Your task to perform on an android device: open sync settings in chrome Image 0: 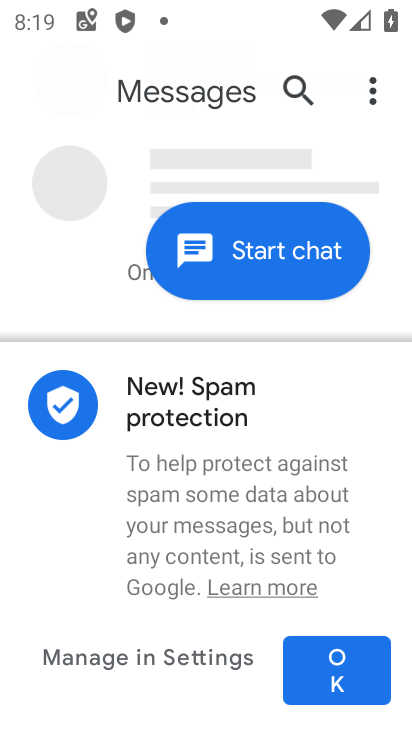
Step 0: press home button
Your task to perform on an android device: open sync settings in chrome Image 1: 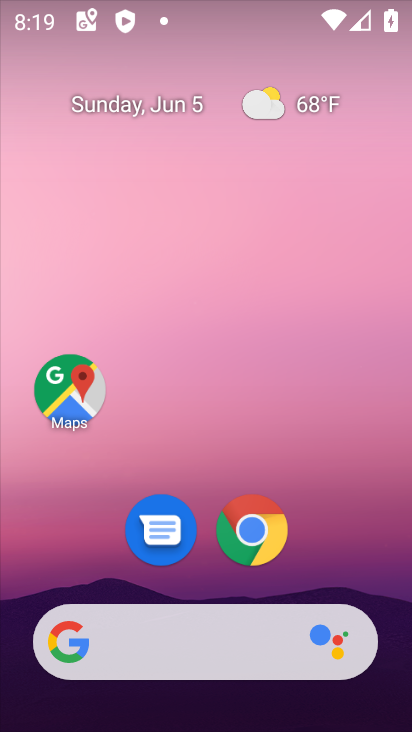
Step 1: click (254, 531)
Your task to perform on an android device: open sync settings in chrome Image 2: 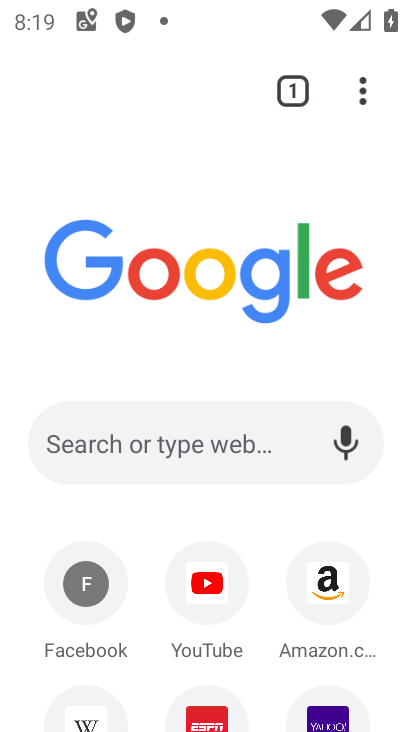
Step 2: click (359, 95)
Your task to perform on an android device: open sync settings in chrome Image 3: 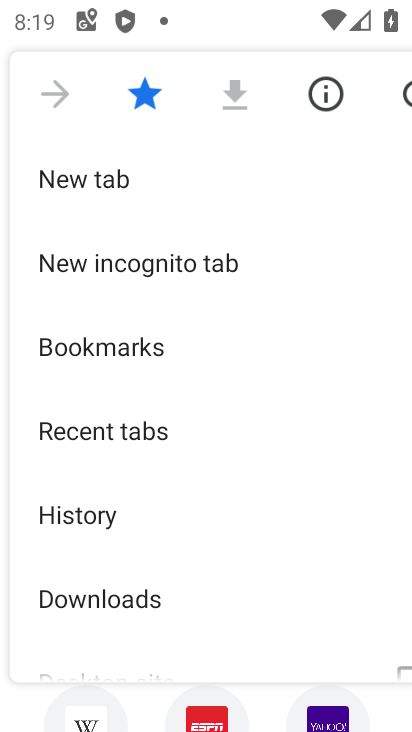
Step 3: drag from (210, 617) to (268, 134)
Your task to perform on an android device: open sync settings in chrome Image 4: 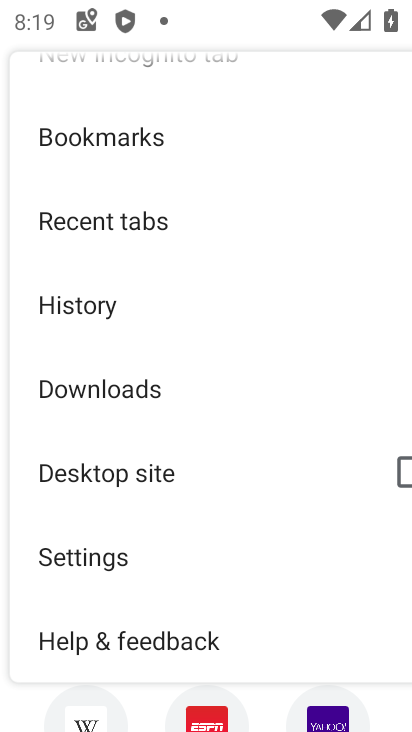
Step 4: click (107, 560)
Your task to perform on an android device: open sync settings in chrome Image 5: 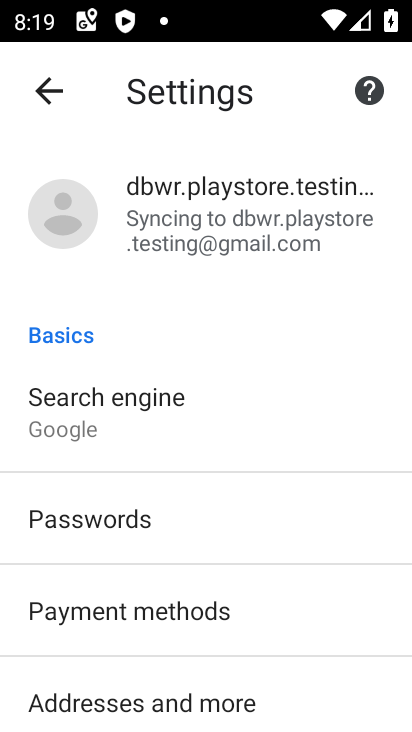
Step 5: drag from (286, 669) to (252, 135)
Your task to perform on an android device: open sync settings in chrome Image 6: 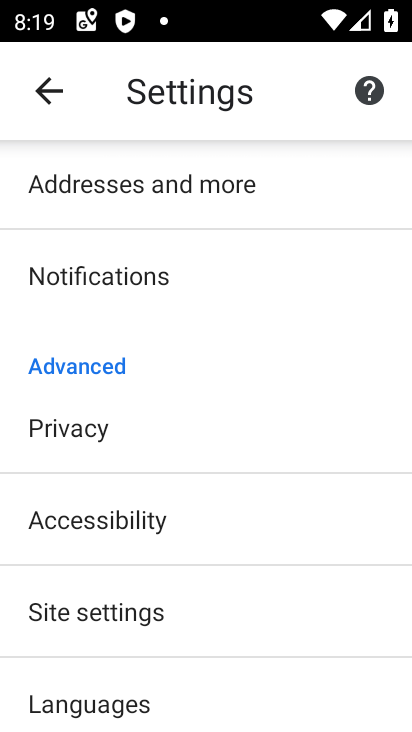
Step 6: drag from (252, 135) to (242, 497)
Your task to perform on an android device: open sync settings in chrome Image 7: 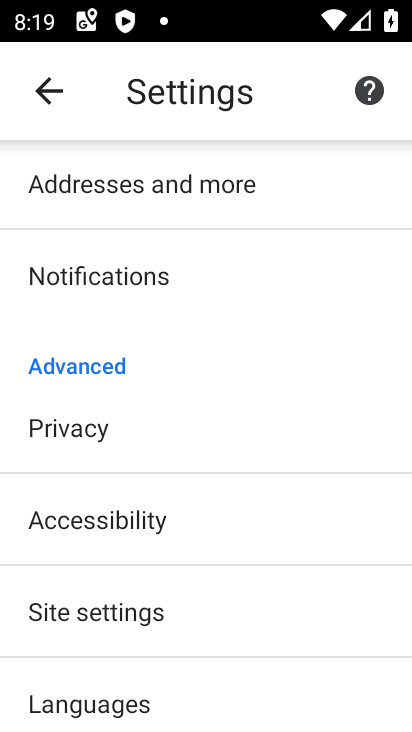
Step 7: drag from (271, 259) to (249, 647)
Your task to perform on an android device: open sync settings in chrome Image 8: 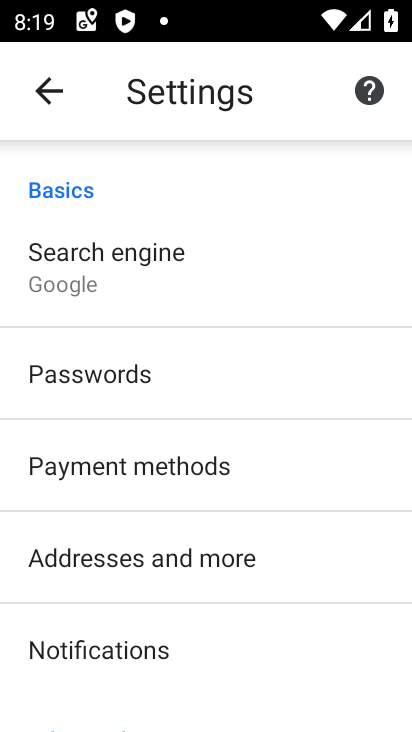
Step 8: drag from (369, 304) to (353, 648)
Your task to perform on an android device: open sync settings in chrome Image 9: 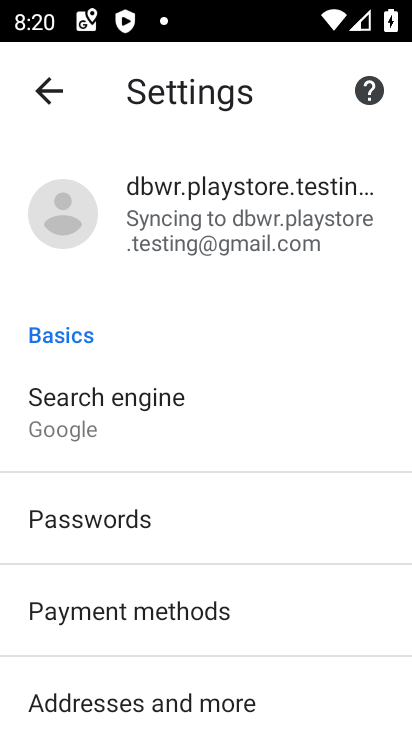
Step 9: click (129, 206)
Your task to perform on an android device: open sync settings in chrome Image 10: 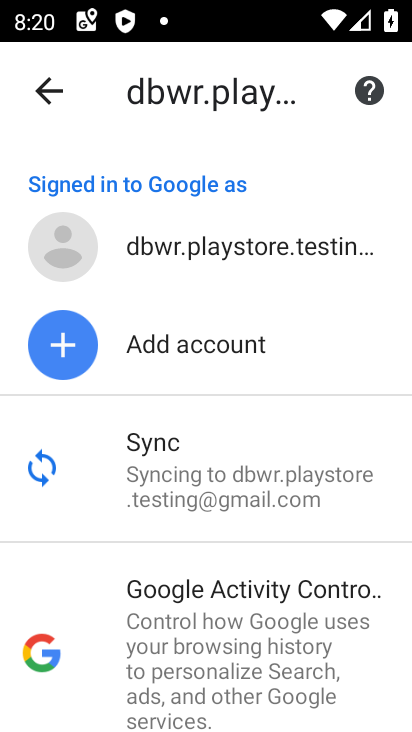
Step 10: click (162, 451)
Your task to perform on an android device: open sync settings in chrome Image 11: 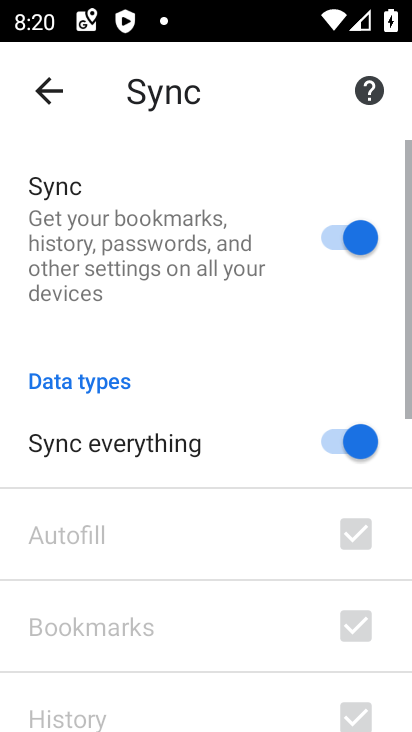
Step 11: task complete